Your task to perform on an android device: toggle location history Image 0: 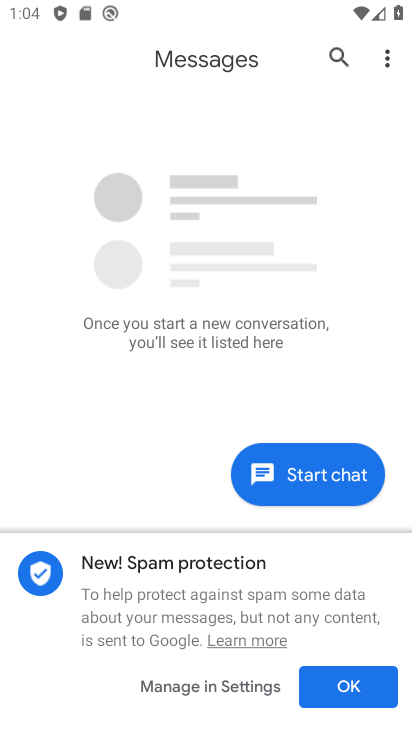
Step 0: press home button
Your task to perform on an android device: toggle location history Image 1: 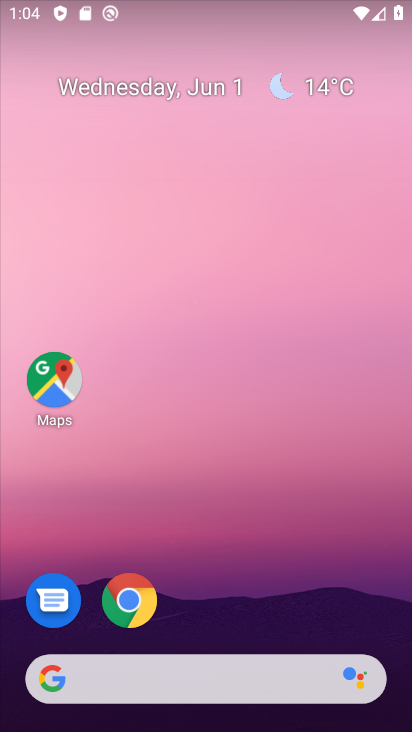
Step 1: drag from (194, 638) to (284, 134)
Your task to perform on an android device: toggle location history Image 2: 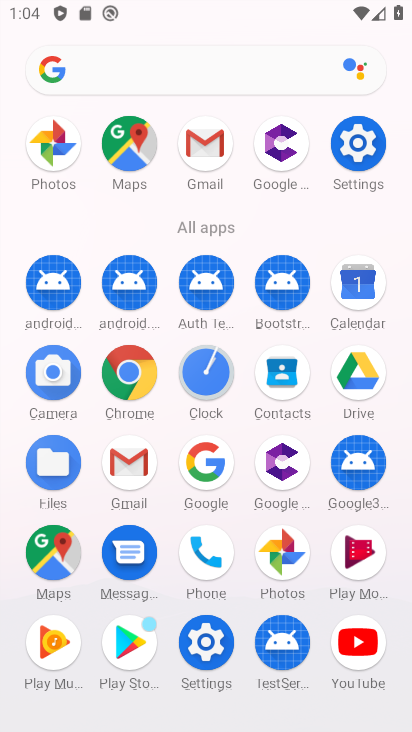
Step 2: drag from (166, 702) to (228, 476)
Your task to perform on an android device: toggle location history Image 3: 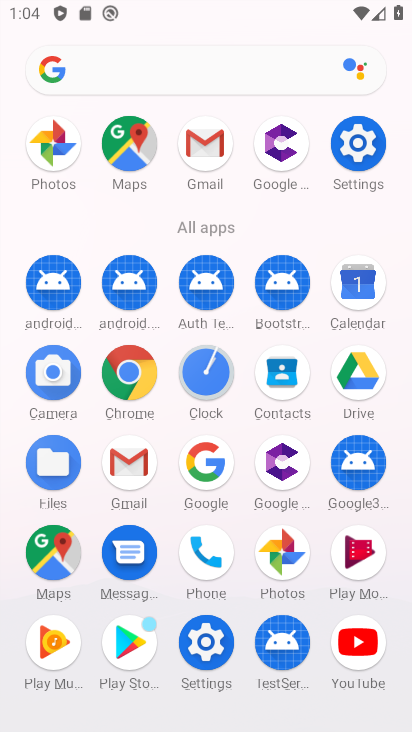
Step 3: click (225, 653)
Your task to perform on an android device: toggle location history Image 4: 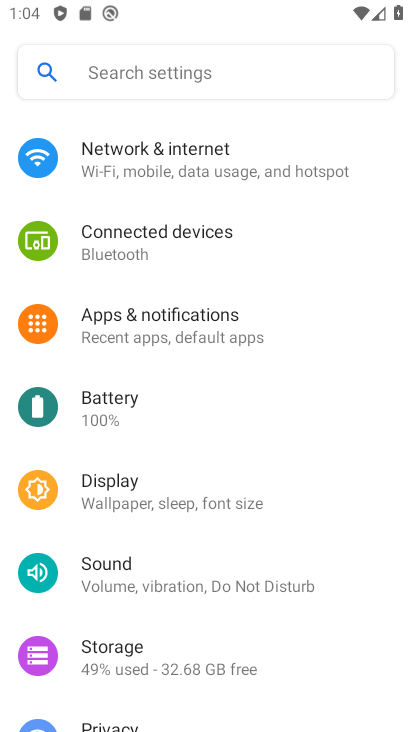
Step 4: drag from (191, 633) to (301, 168)
Your task to perform on an android device: toggle location history Image 5: 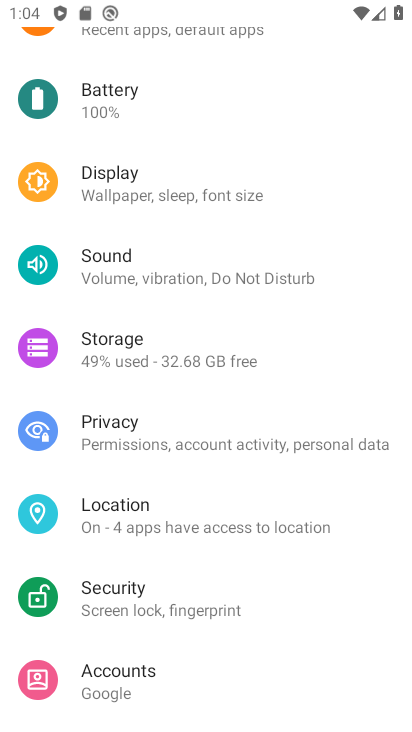
Step 5: click (174, 522)
Your task to perform on an android device: toggle location history Image 6: 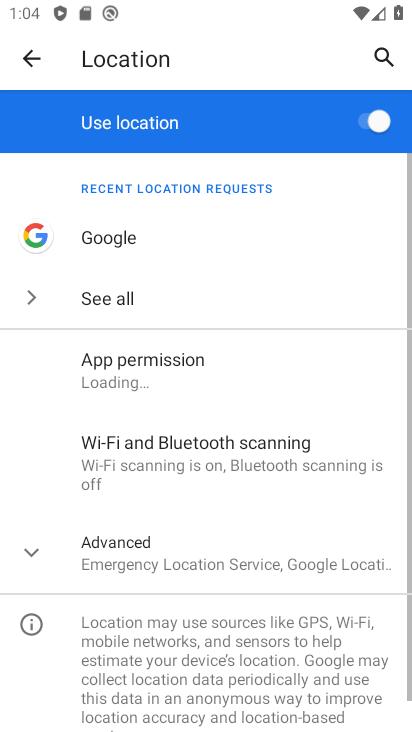
Step 6: click (214, 571)
Your task to perform on an android device: toggle location history Image 7: 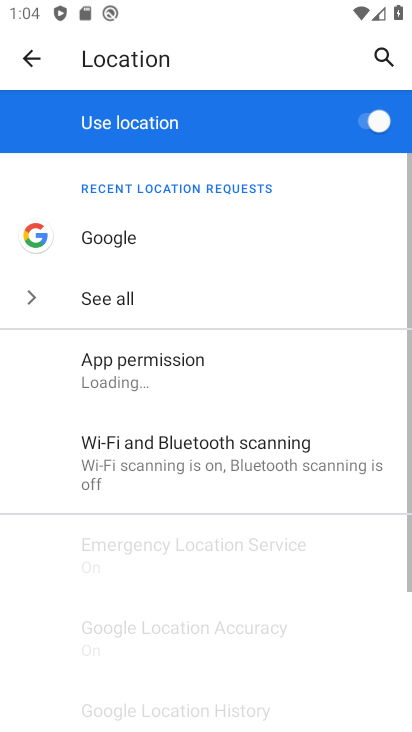
Step 7: drag from (215, 597) to (303, 190)
Your task to perform on an android device: toggle location history Image 8: 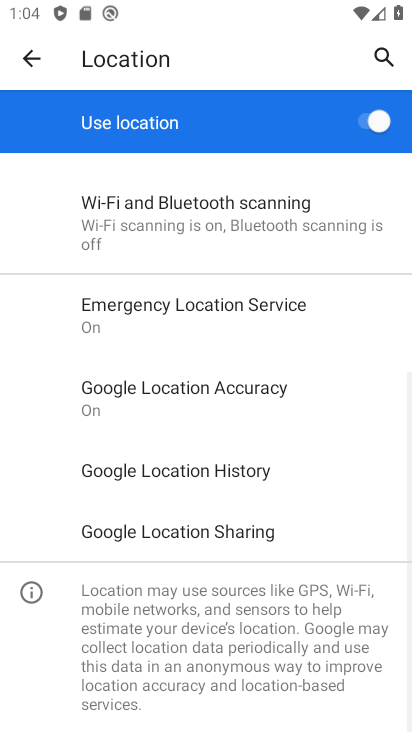
Step 8: click (206, 484)
Your task to perform on an android device: toggle location history Image 9: 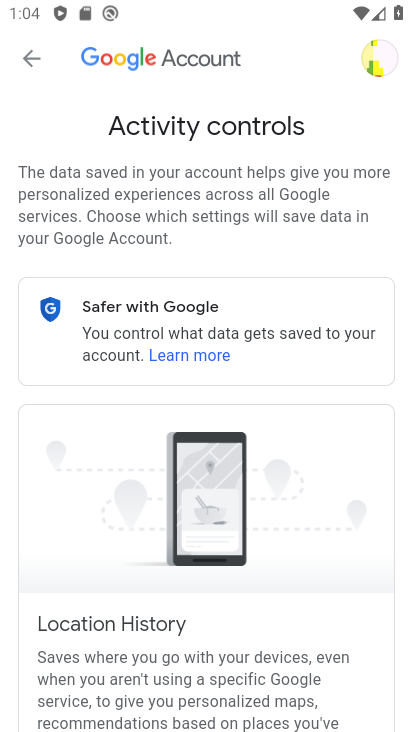
Step 9: drag from (203, 690) to (311, 253)
Your task to perform on an android device: toggle location history Image 10: 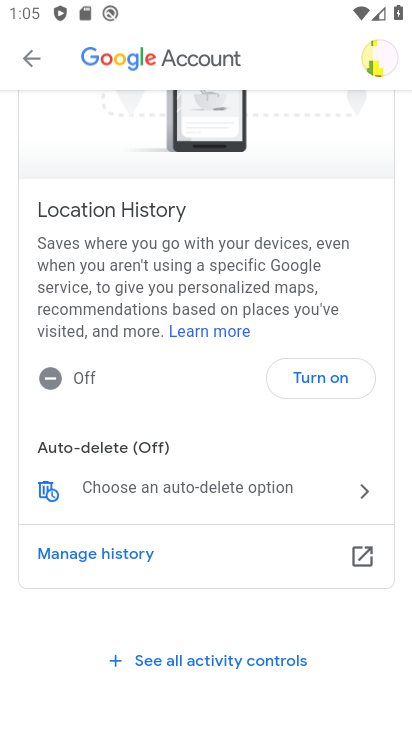
Step 10: click (340, 380)
Your task to perform on an android device: toggle location history Image 11: 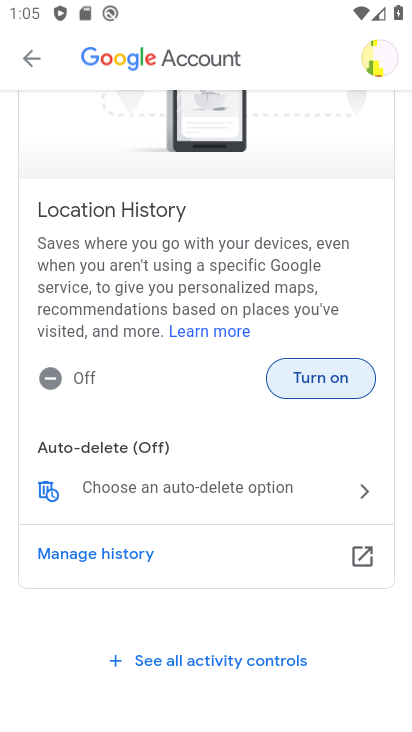
Step 11: click (319, 392)
Your task to perform on an android device: toggle location history Image 12: 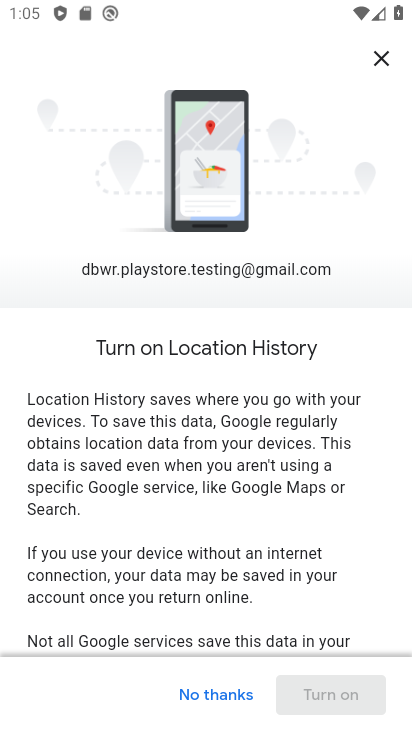
Step 12: click (318, 391)
Your task to perform on an android device: toggle location history Image 13: 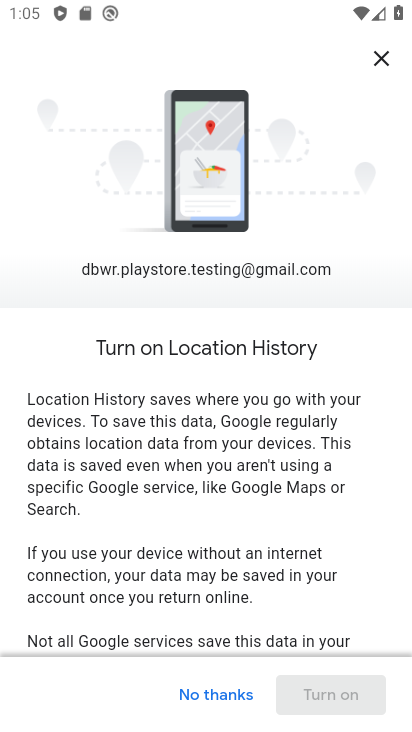
Step 13: drag from (220, 612) to (307, 316)
Your task to perform on an android device: toggle location history Image 14: 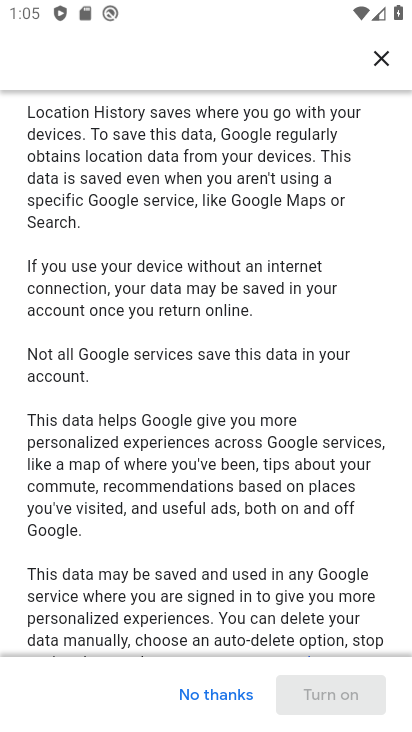
Step 14: drag from (244, 591) to (344, 124)
Your task to perform on an android device: toggle location history Image 15: 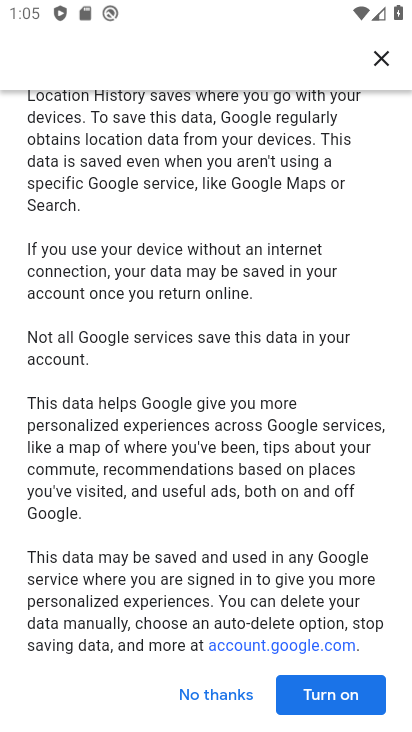
Step 15: click (346, 693)
Your task to perform on an android device: toggle location history Image 16: 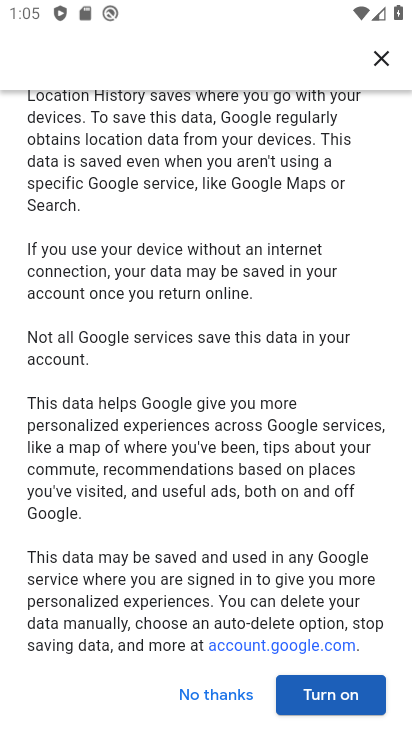
Step 16: click (349, 706)
Your task to perform on an android device: toggle location history Image 17: 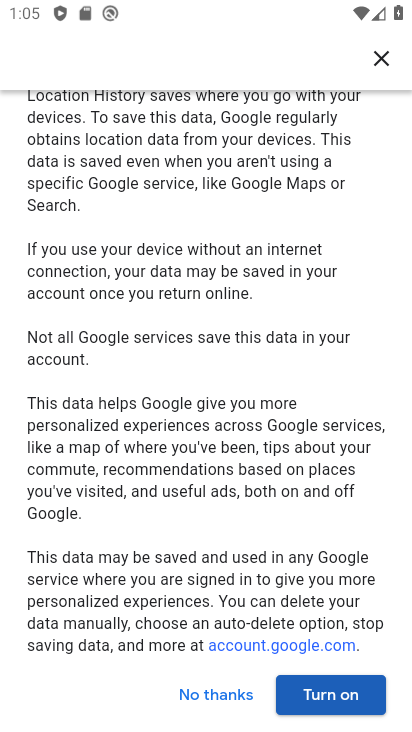
Step 17: click (324, 703)
Your task to perform on an android device: toggle location history Image 18: 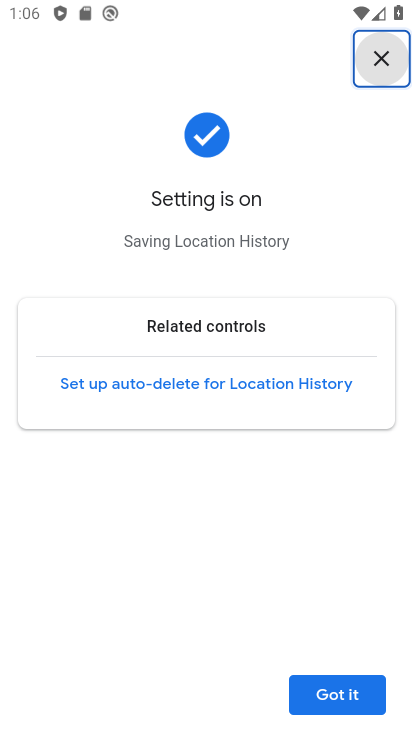
Step 18: click (338, 686)
Your task to perform on an android device: toggle location history Image 19: 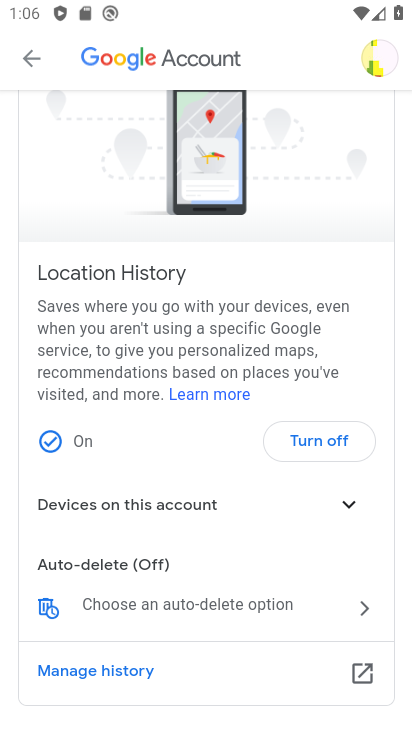
Step 19: task complete